Your task to perform on an android device: open app "Microsoft Authenticator" (install if not already installed) and go to login screen Image 0: 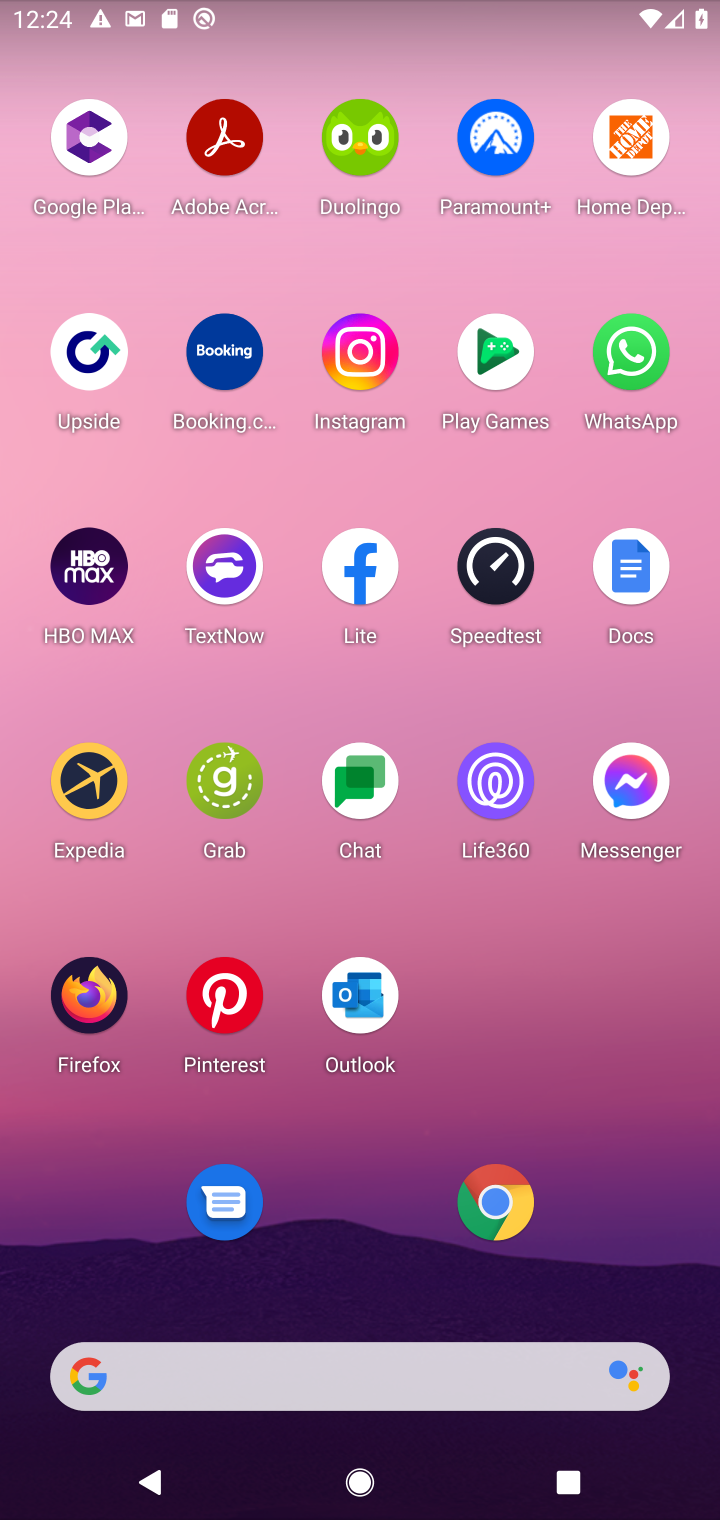
Step 0: drag from (337, 1300) to (270, 175)
Your task to perform on an android device: open app "Microsoft Authenticator" (install if not already installed) and go to login screen Image 1: 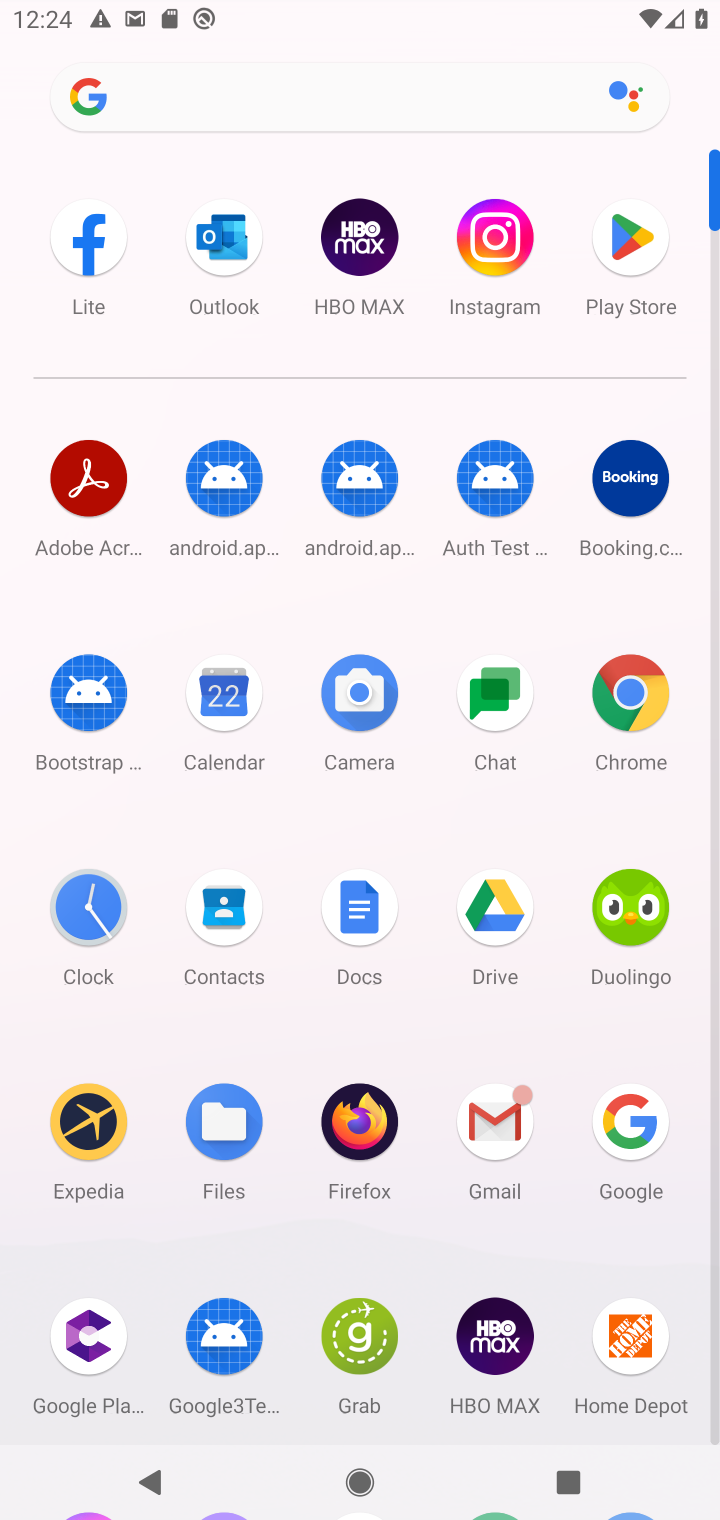
Step 1: click (626, 247)
Your task to perform on an android device: open app "Microsoft Authenticator" (install if not already installed) and go to login screen Image 2: 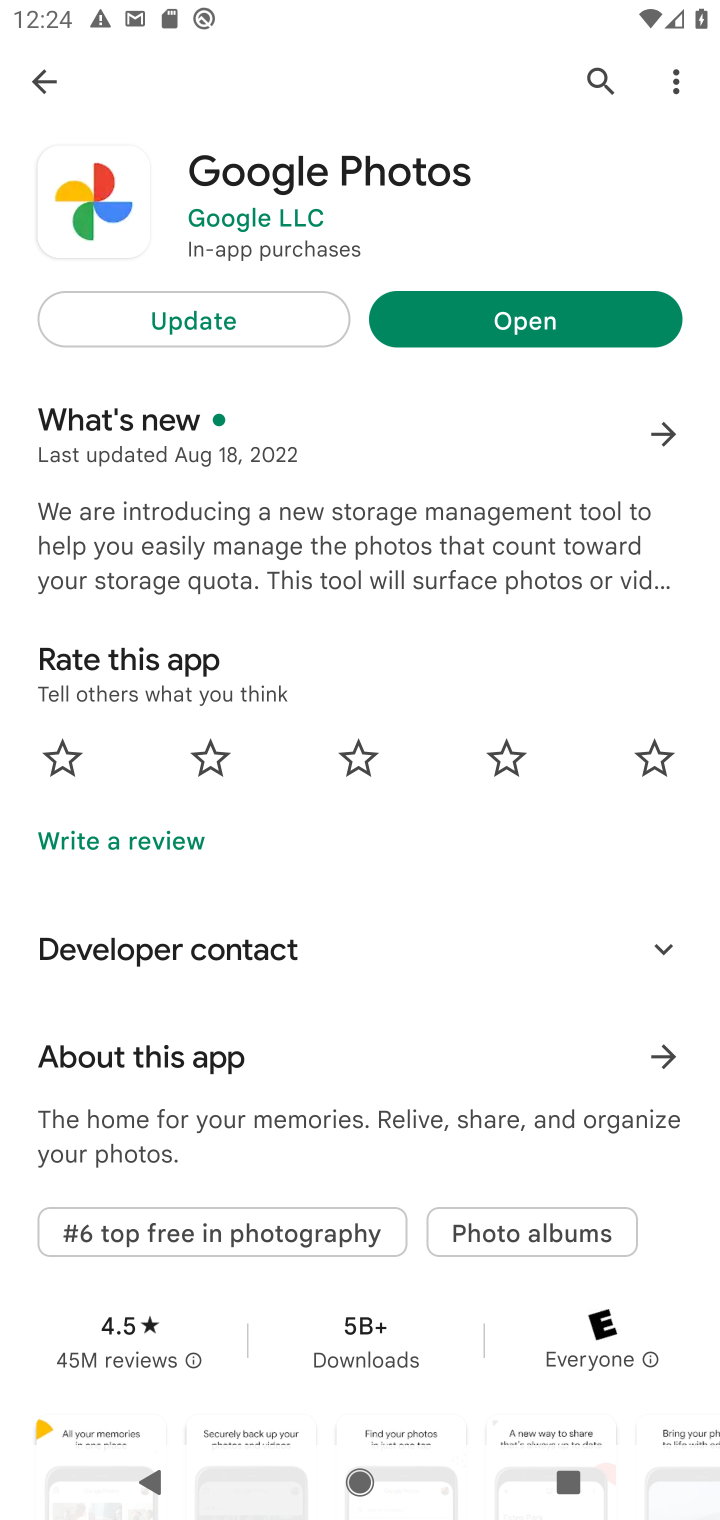
Step 2: click (593, 63)
Your task to perform on an android device: open app "Microsoft Authenticator" (install if not already installed) and go to login screen Image 3: 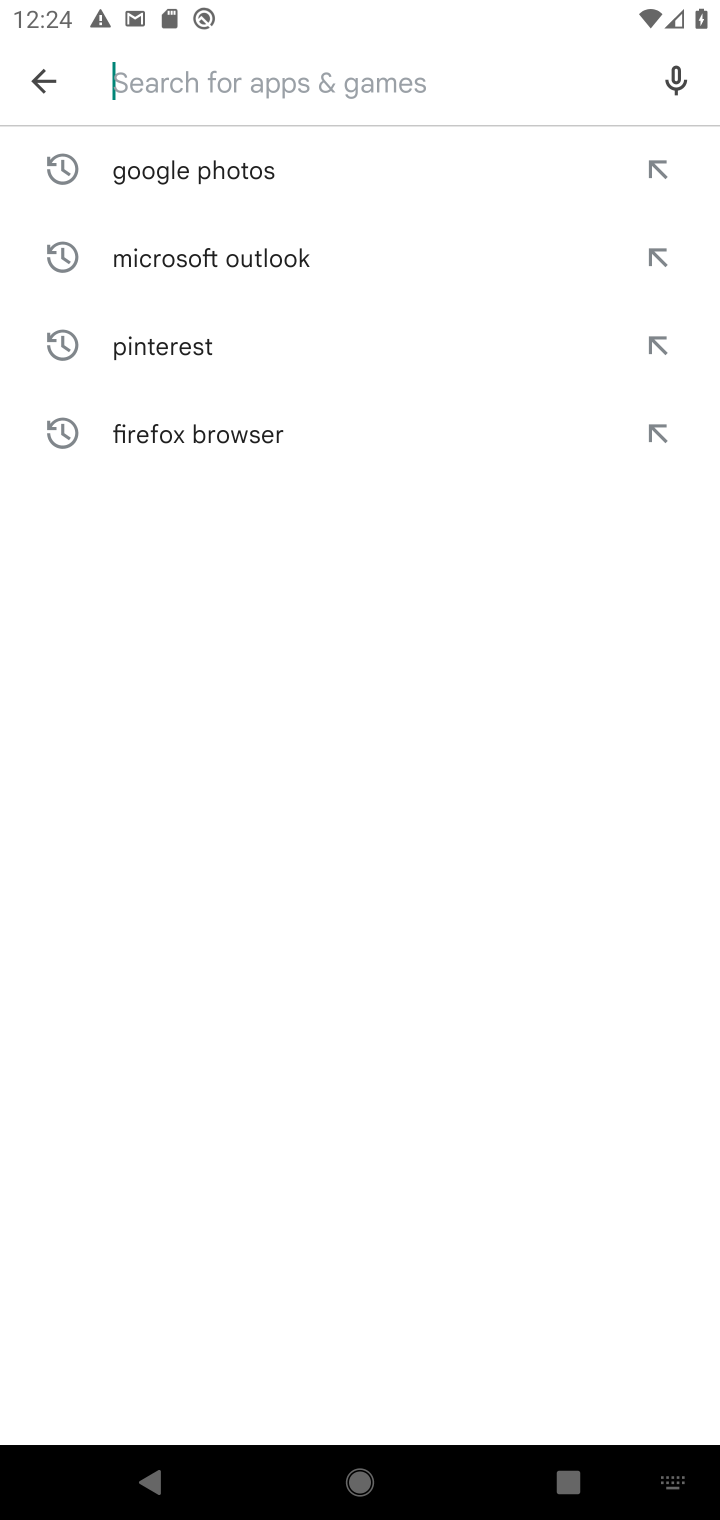
Step 3: type "Microsoft Authenticator"
Your task to perform on an android device: open app "Microsoft Authenticator" (install if not already installed) and go to login screen Image 4: 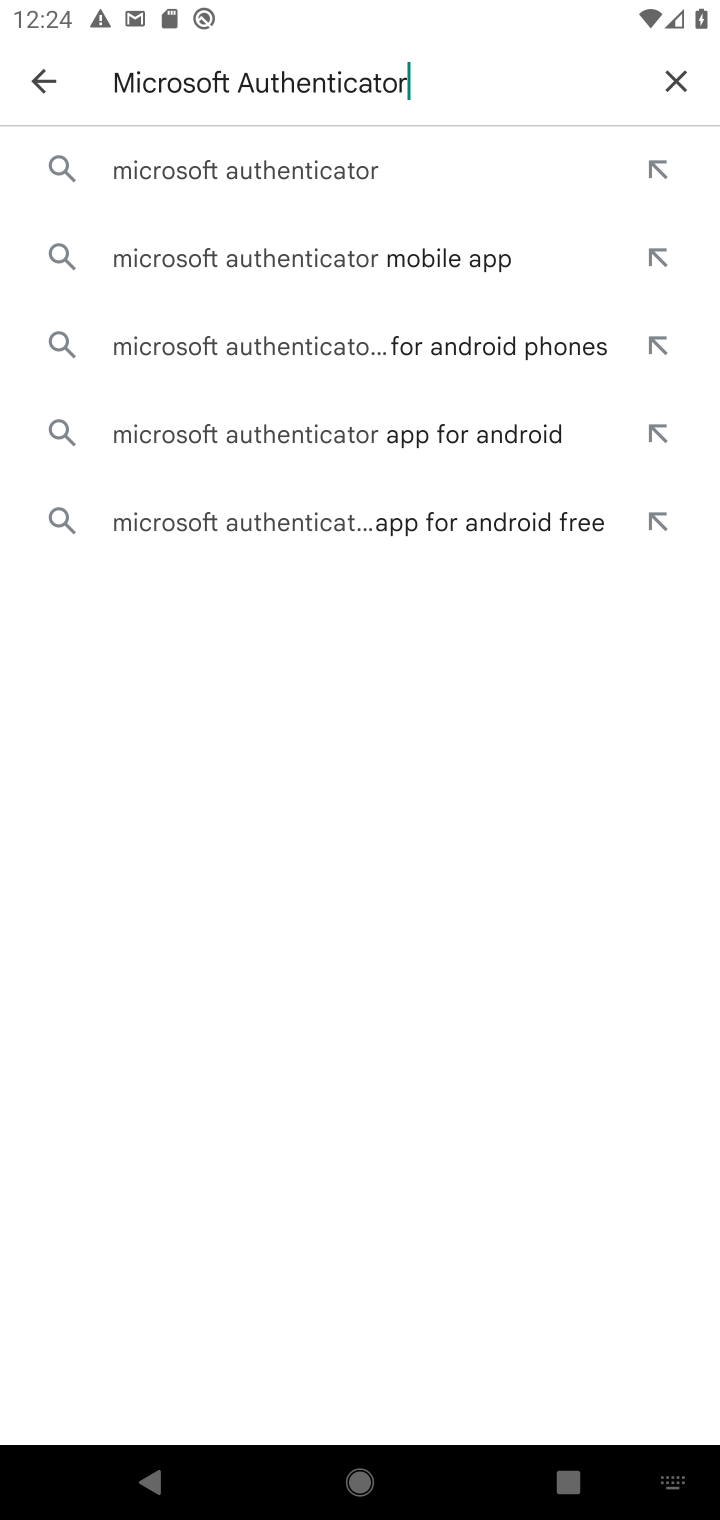
Step 4: click (270, 174)
Your task to perform on an android device: open app "Microsoft Authenticator" (install if not already installed) and go to login screen Image 5: 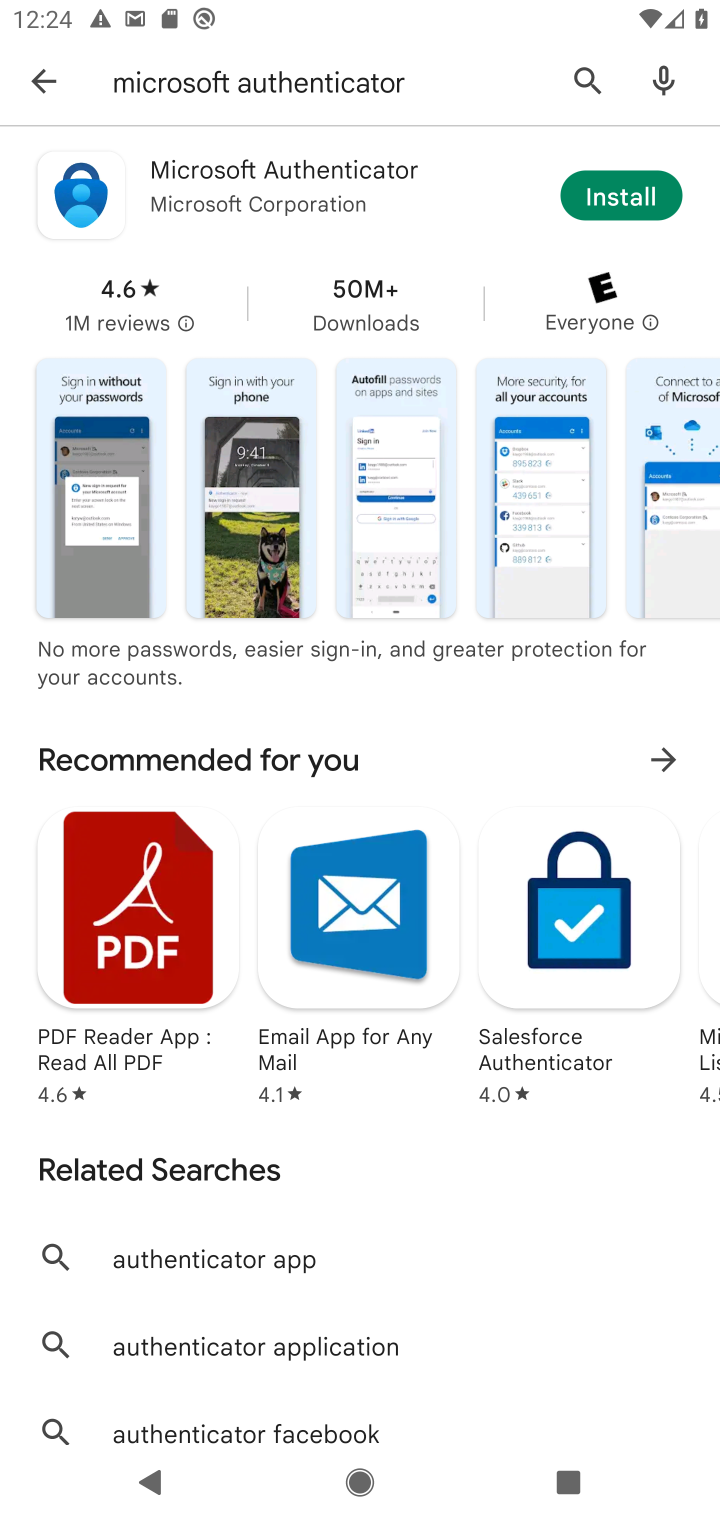
Step 5: click (621, 200)
Your task to perform on an android device: open app "Microsoft Authenticator" (install if not already installed) and go to login screen Image 6: 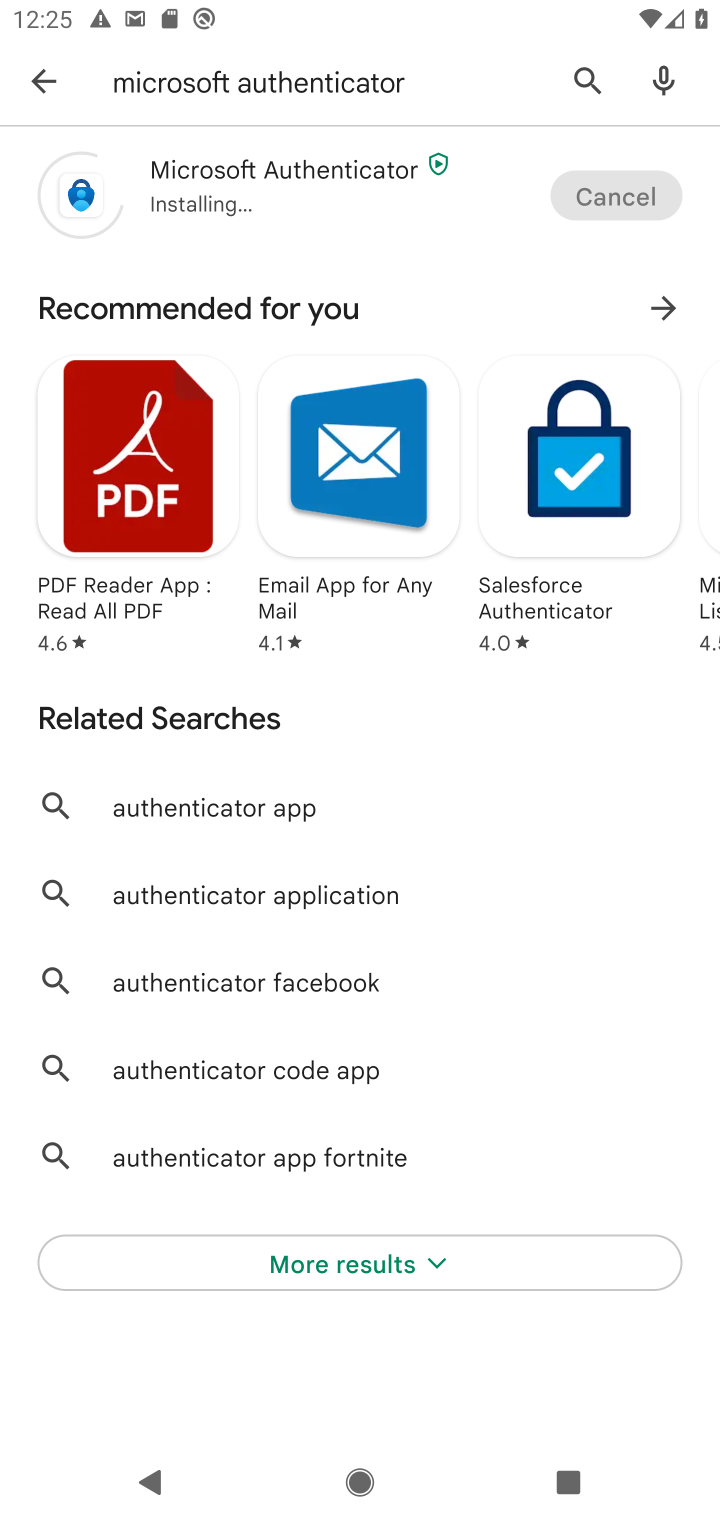
Step 6: click (621, 200)
Your task to perform on an android device: open app "Microsoft Authenticator" (install if not already installed) and go to login screen Image 7: 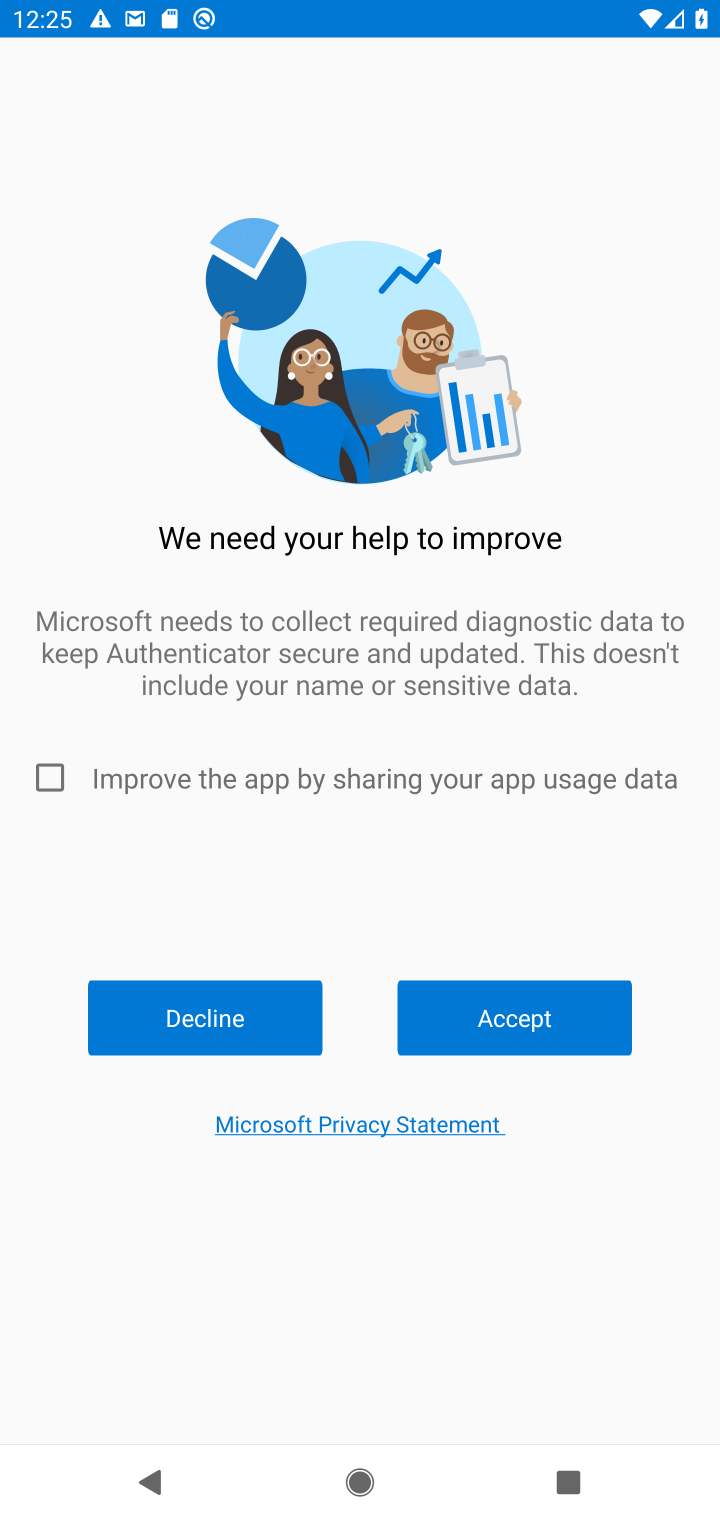
Step 7: click (480, 1027)
Your task to perform on an android device: open app "Microsoft Authenticator" (install if not already installed) and go to login screen Image 8: 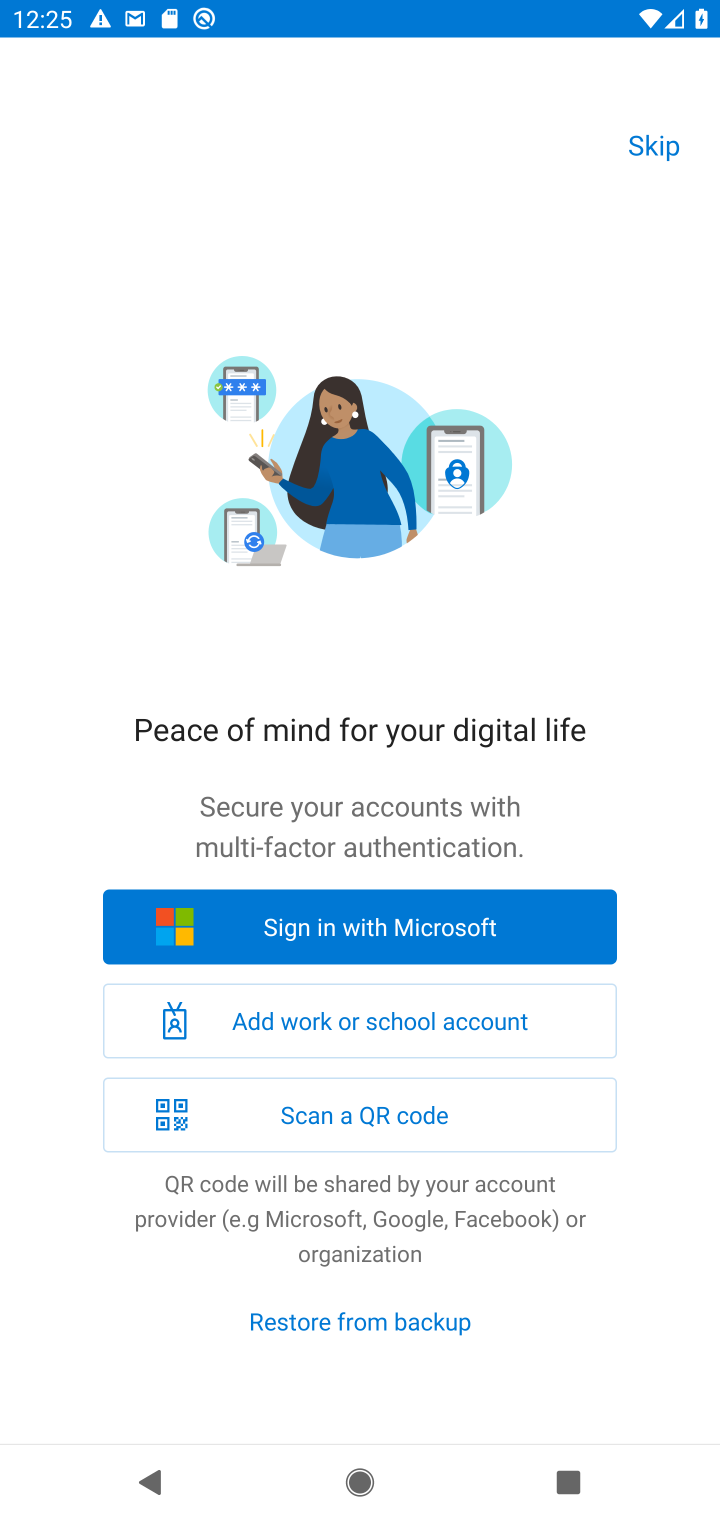
Step 8: task complete